Your task to perform on an android device: find snoozed emails in the gmail app Image 0: 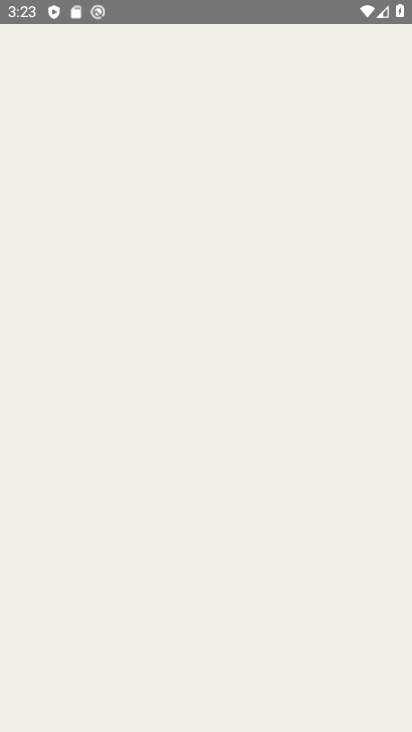
Step 0: click (236, 164)
Your task to perform on an android device: find snoozed emails in the gmail app Image 1: 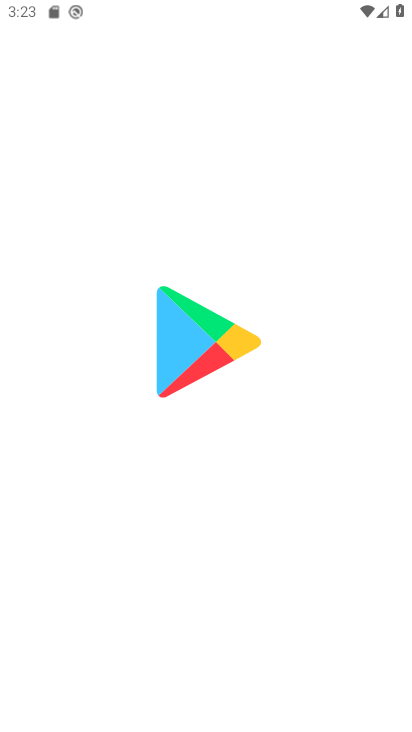
Step 1: drag from (161, 641) to (274, 151)
Your task to perform on an android device: find snoozed emails in the gmail app Image 2: 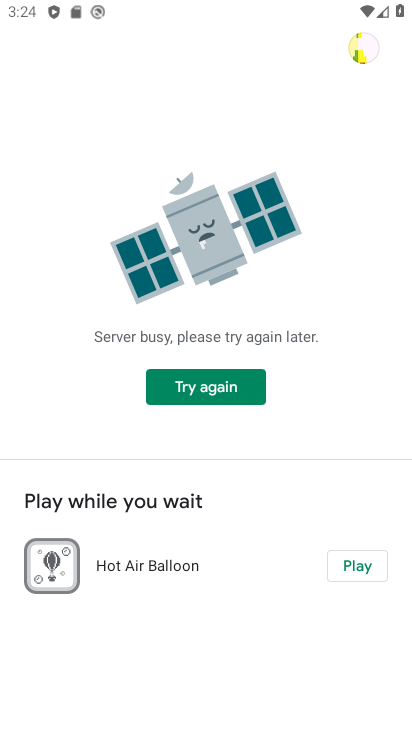
Step 2: press home button
Your task to perform on an android device: find snoozed emails in the gmail app Image 3: 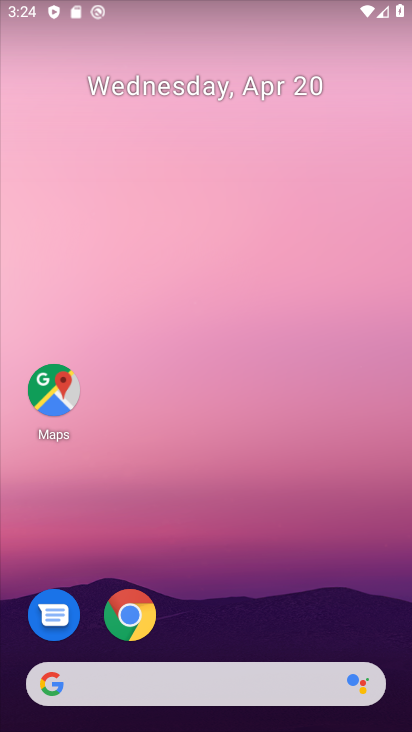
Step 3: drag from (194, 630) to (205, 219)
Your task to perform on an android device: find snoozed emails in the gmail app Image 4: 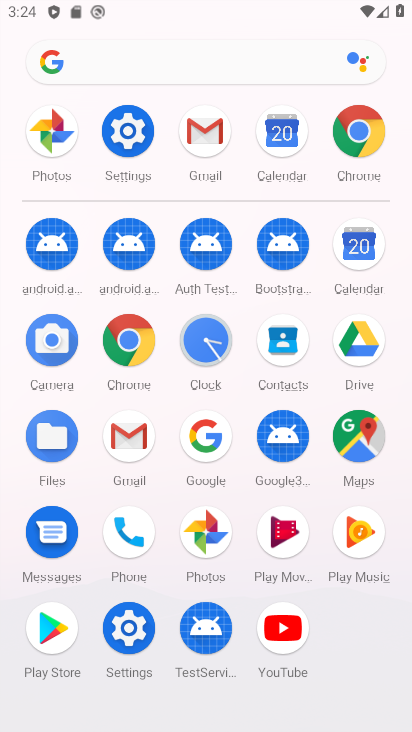
Step 4: click (144, 427)
Your task to perform on an android device: find snoozed emails in the gmail app Image 5: 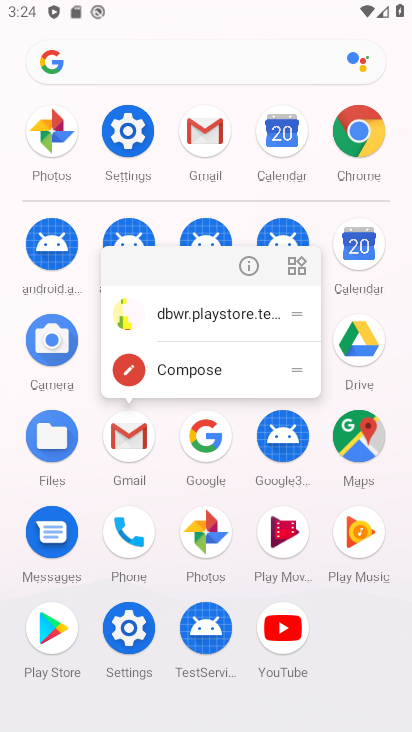
Step 5: click (256, 261)
Your task to perform on an android device: find snoozed emails in the gmail app Image 6: 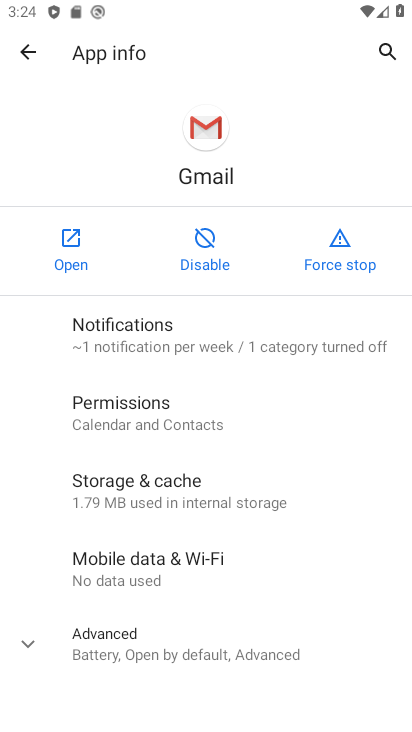
Step 6: click (79, 230)
Your task to perform on an android device: find snoozed emails in the gmail app Image 7: 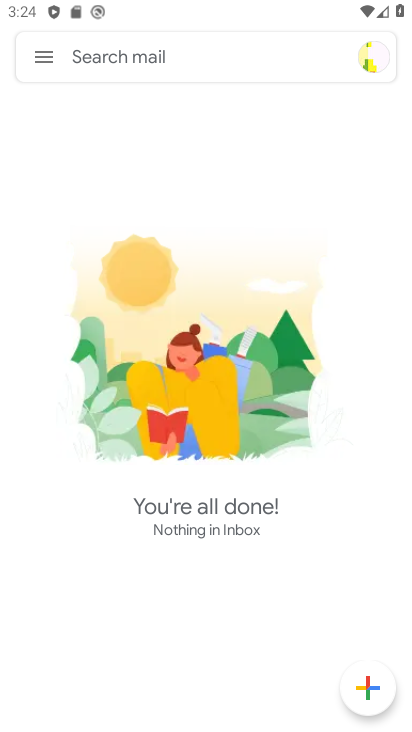
Step 7: click (34, 64)
Your task to perform on an android device: find snoozed emails in the gmail app Image 8: 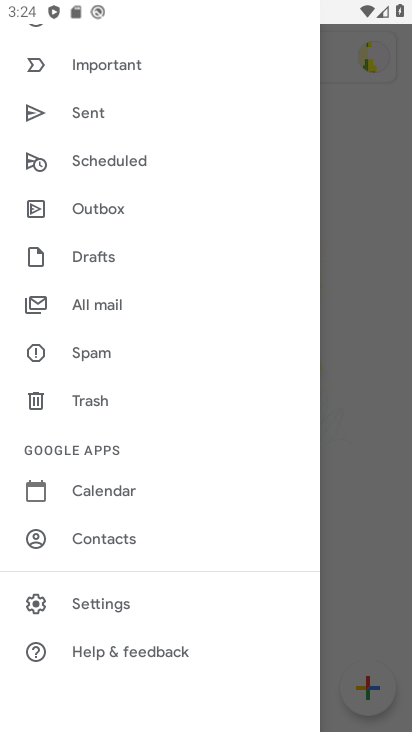
Step 8: drag from (184, 258) to (260, 658)
Your task to perform on an android device: find snoozed emails in the gmail app Image 9: 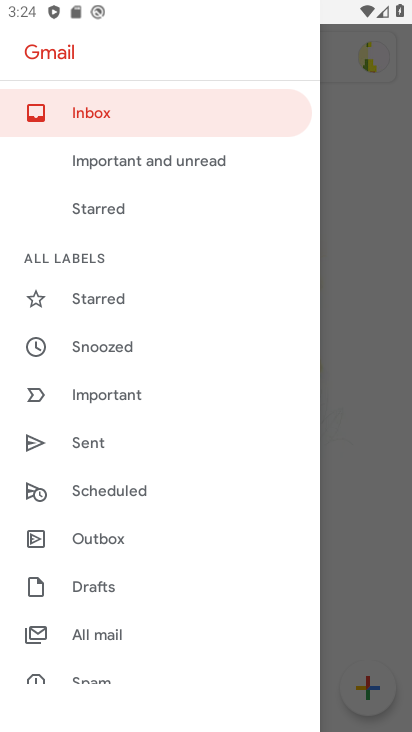
Step 9: click (139, 337)
Your task to perform on an android device: find snoozed emails in the gmail app Image 10: 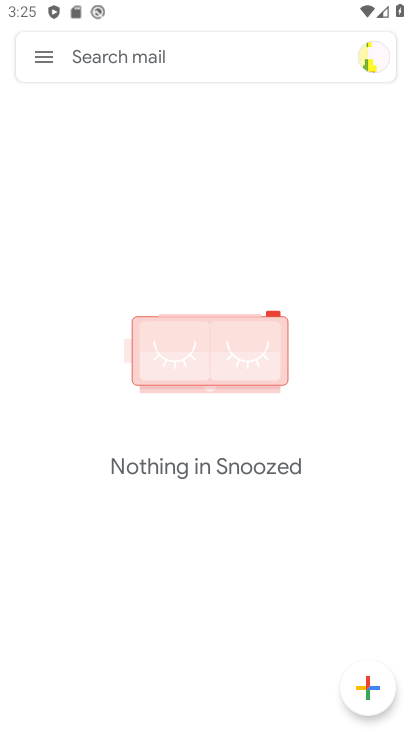
Step 10: drag from (237, 637) to (289, 299)
Your task to perform on an android device: find snoozed emails in the gmail app Image 11: 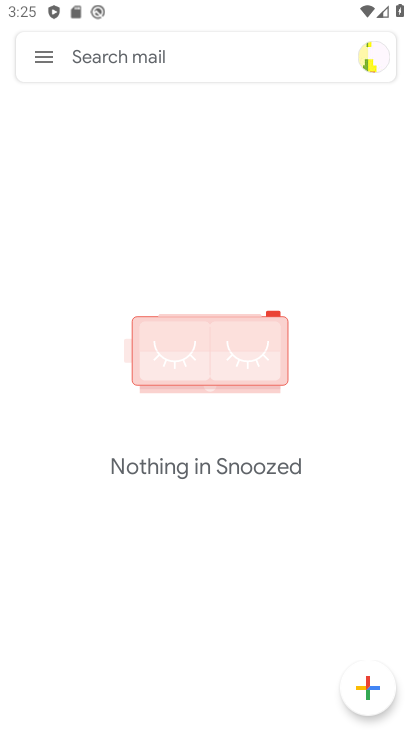
Step 11: click (39, 47)
Your task to perform on an android device: find snoozed emails in the gmail app Image 12: 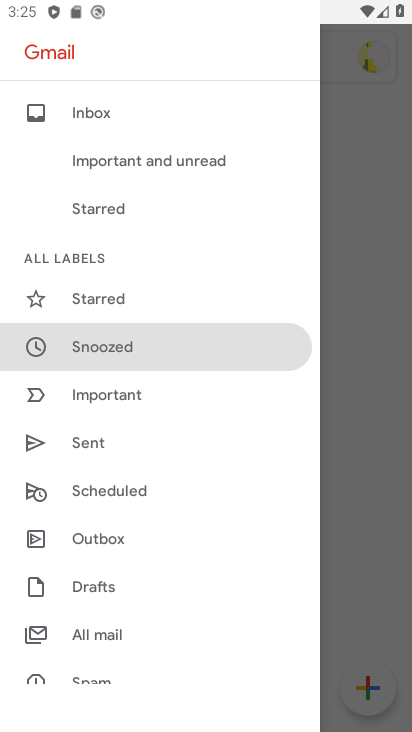
Step 12: click (160, 333)
Your task to perform on an android device: find snoozed emails in the gmail app Image 13: 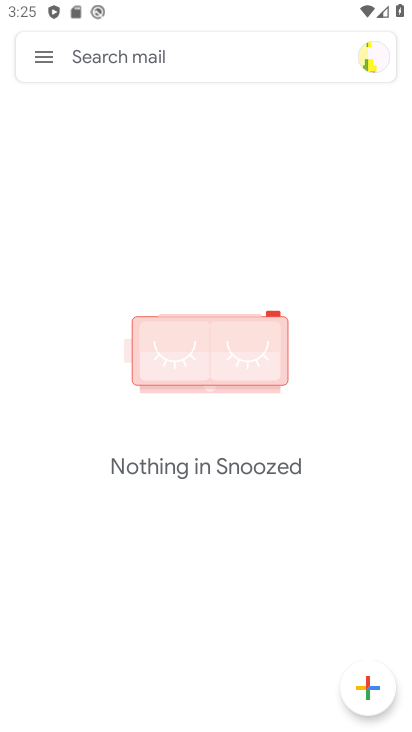
Step 13: task complete